Your task to perform on an android device: open the mobile data screen to see how much data has been used Image 0: 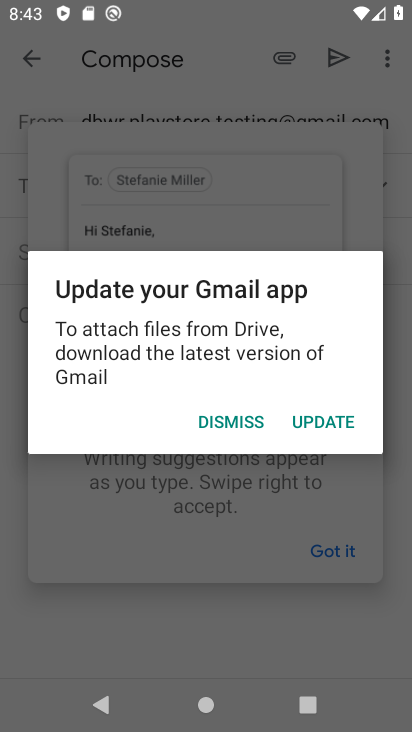
Step 0: press home button
Your task to perform on an android device: open the mobile data screen to see how much data has been used Image 1: 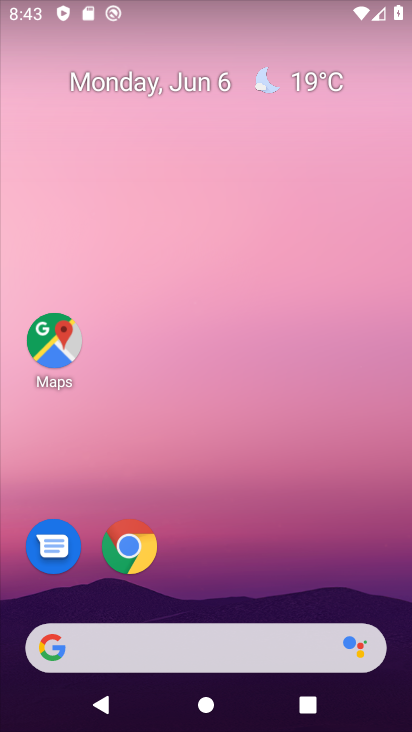
Step 1: drag from (138, 717) to (183, 191)
Your task to perform on an android device: open the mobile data screen to see how much data has been used Image 2: 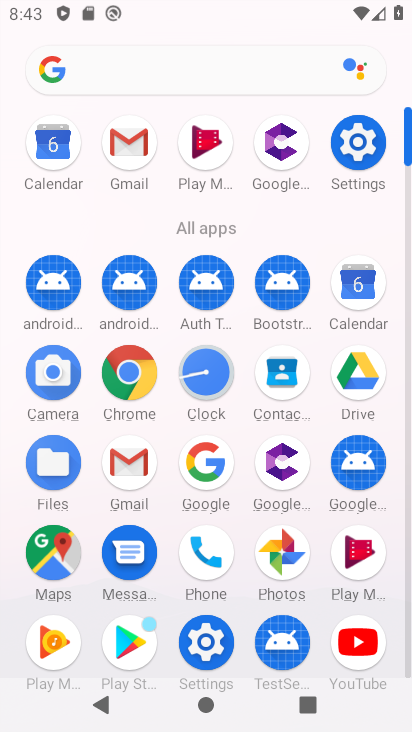
Step 2: click (378, 141)
Your task to perform on an android device: open the mobile data screen to see how much data has been used Image 3: 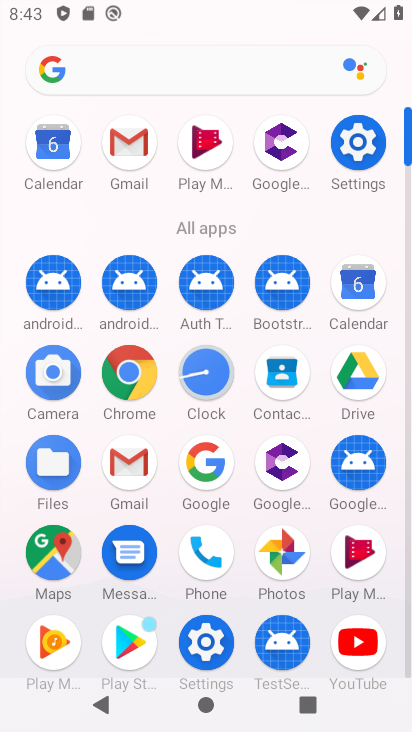
Step 3: click (350, 158)
Your task to perform on an android device: open the mobile data screen to see how much data has been used Image 4: 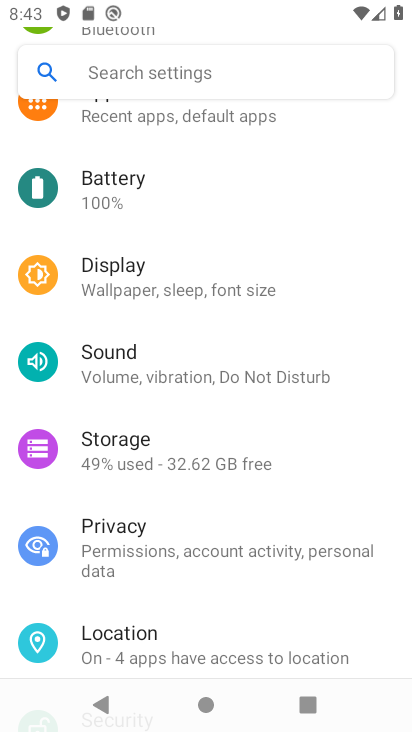
Step 4: drag from (290, 149) to (309, 350)
Your task to perform on an android device: open the mobile data screen to see how much data has been used Image 5: 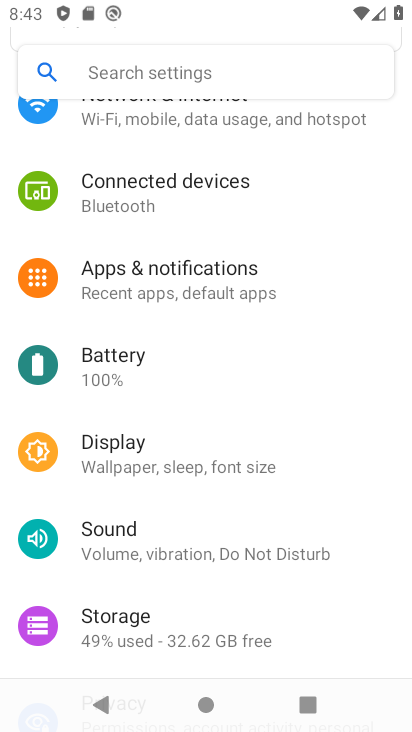
Step 5: drag from (294, 133) to (310, 498)
Your task to perform on an android device: open the mobile data screen to see how much data has been used Image 6: 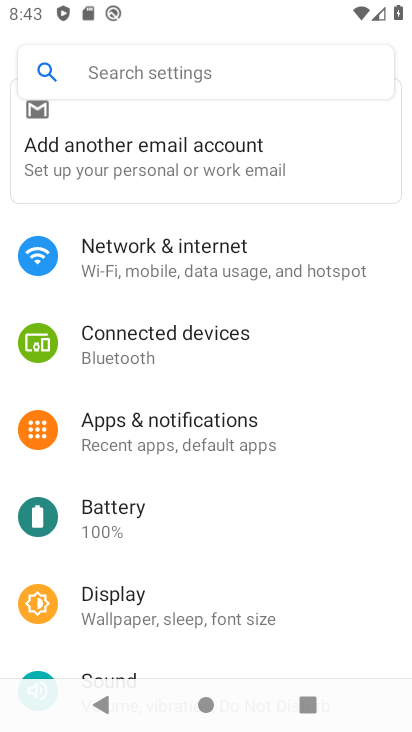
Step 6: click (192, 264)
Your task to perform on an android device: open the mobile data screen to see how much data has been used Image 7: 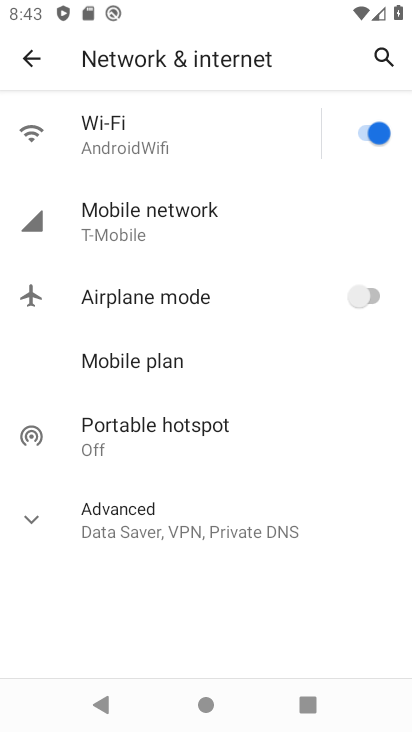
Step 7: click (148, 220)
Your task to perform on an android device: open the mobile data screen to see how much data has been used Image 8: 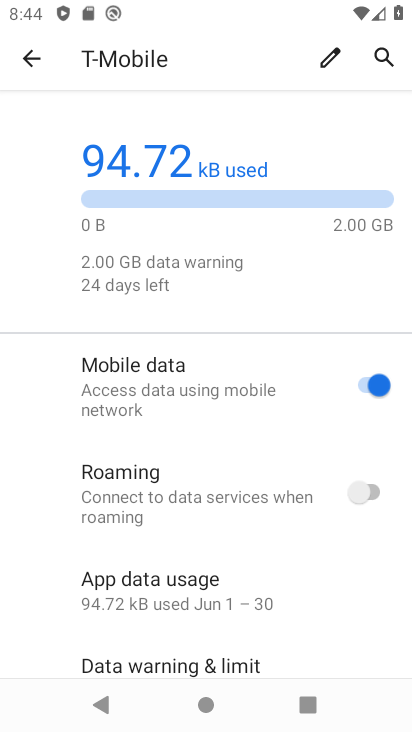
Step 8: task complete